Your task to perform on an android device: turn off translation in the chrome app Image 0: 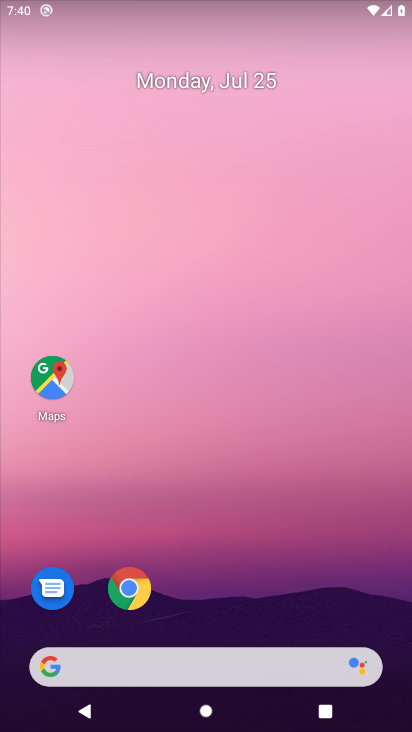
Step 0: drag from (239, 528) to (232, 207)
Your task to perform on an android device: turn off translation in the chrome app Image 1: 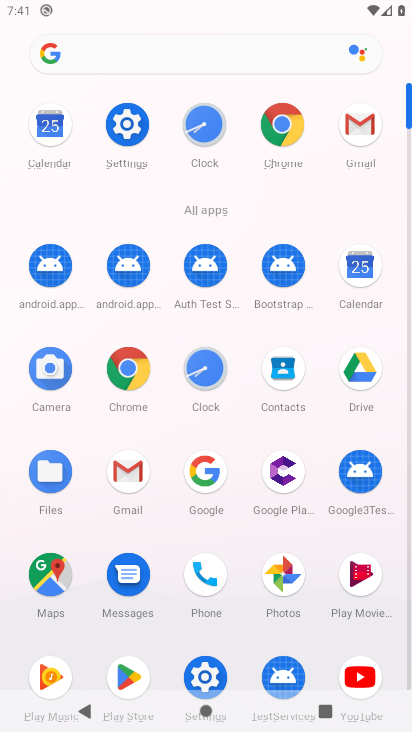
Step 1: click (140, 378)
Your task to perform on an android device: turn off translation in the chrome app Image 2: 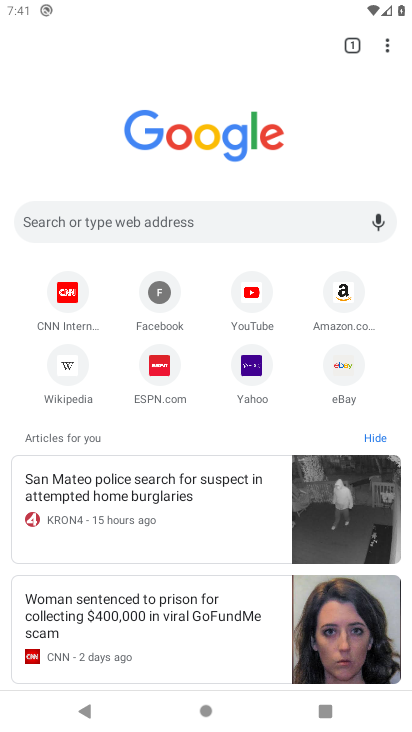
Step 2: task complete